Your task to perform on an android device: turn smart compose on in the gmail app Image 0: 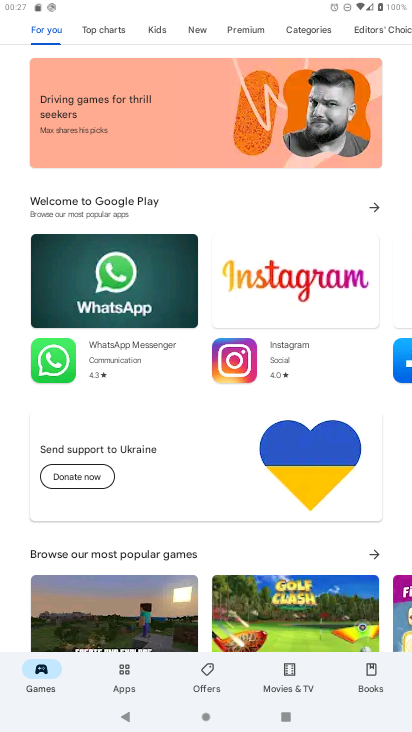
Step 0: drag from (206, 623) to (230, 236)
Your task to perform on an android device: turn smart compose on in the gmail app Image 1: 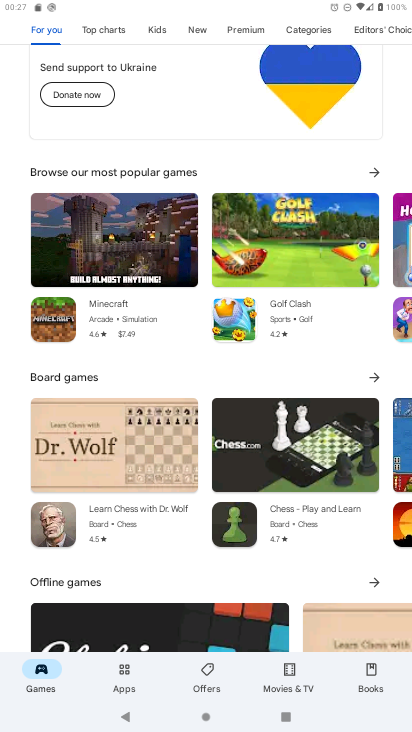
Step 1: drag from (202, 174) to (232, 652)
Your task to perform on an android device: turn smart compose on in the gmail app Image 2: 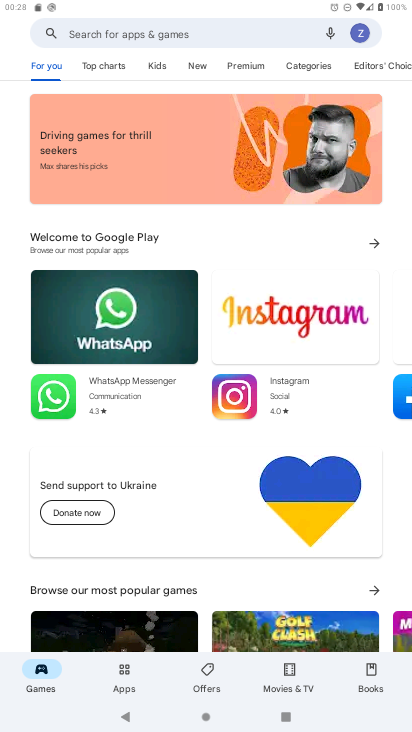
Step 2: press home button
Your task to perform on an android device: turn smart compose on in the gmail app Image 3: 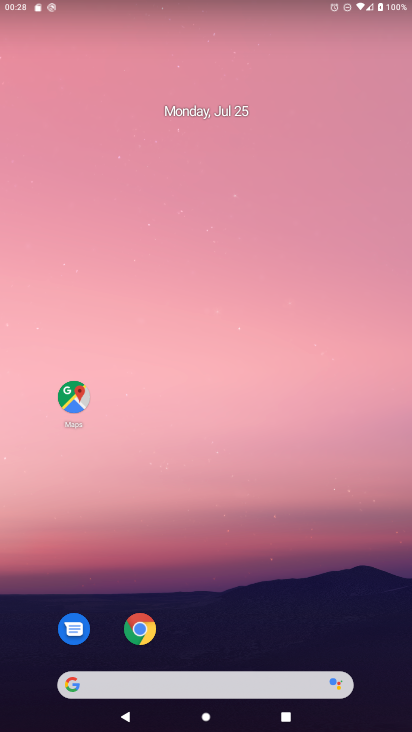
Step 3: drag from (193, 641) to (205, 188)
Your task to perform on an android device: turn smart compose on in the gmail app Image 4: 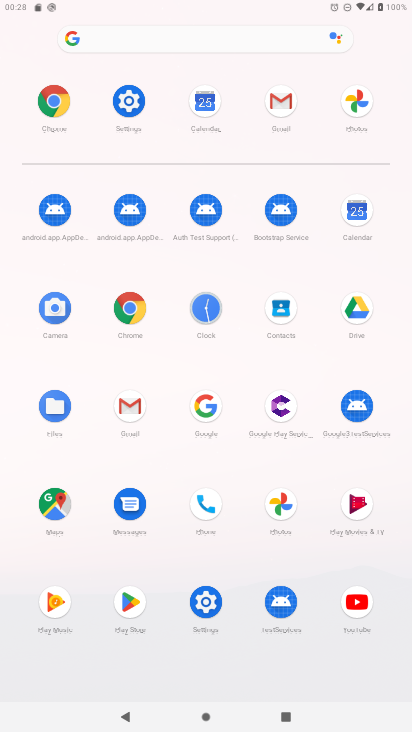
Step 4: click (120, 394)
Your task to perform on an android device: turn smart compose on in the gmail app Image 5: 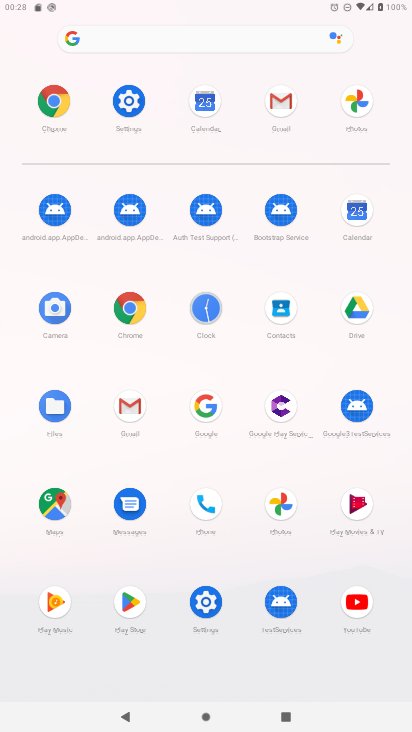
Step 5: click (120, 394)
Your task to perform on an android device: turn smart compose on in the gmail app Image 6: 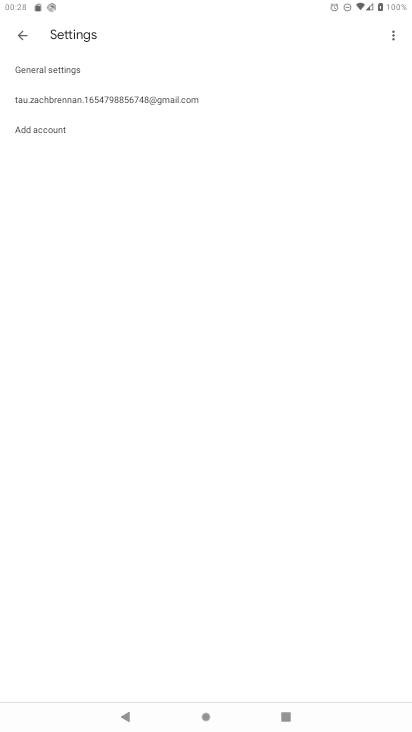
Step 6: click (96, 103)
Your task to perform on an android device: turn smart compose on in the gmail app Image 7: 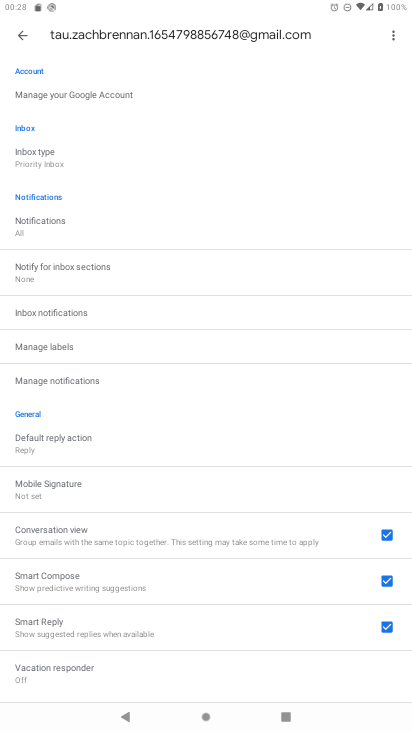
Step 7: task complete